Your task to perform on an android device: change the clock display to digital Image 0: 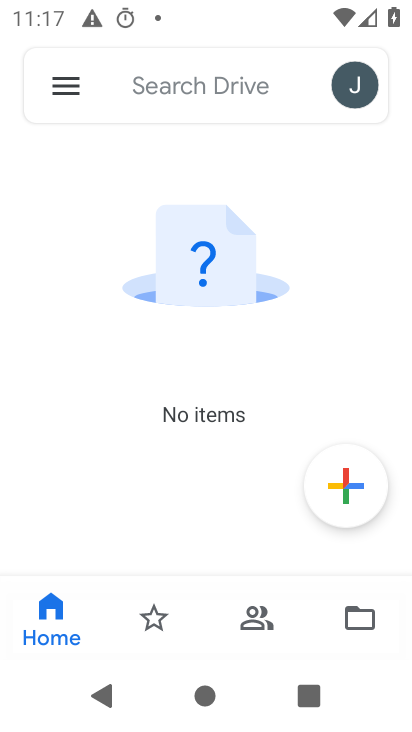
Step 0: press back button
Your task to perform on an android device: change the clock display to digital Image 1: 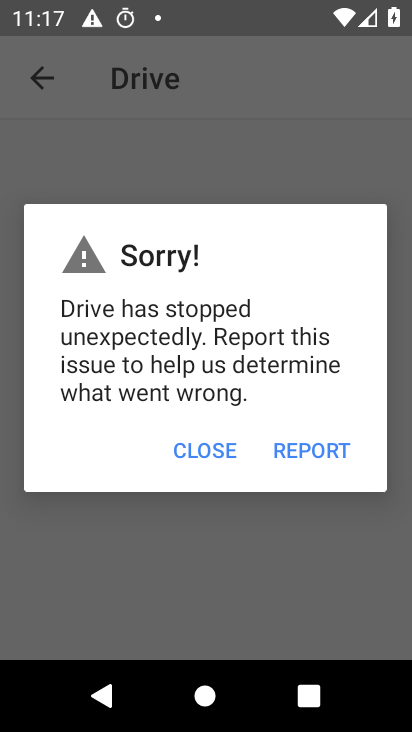
Step 1: press back button
Your task to perform on an android device: change the clock display to digital Image 2: 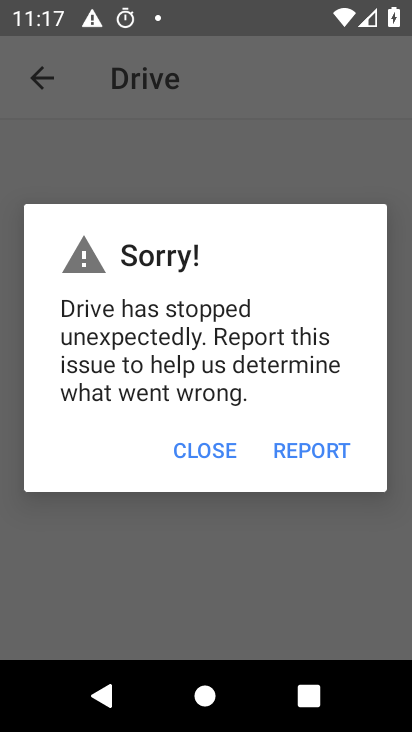
Step 2: press back button
Your task to perform on an android device: change the clock display to digital Image 3: 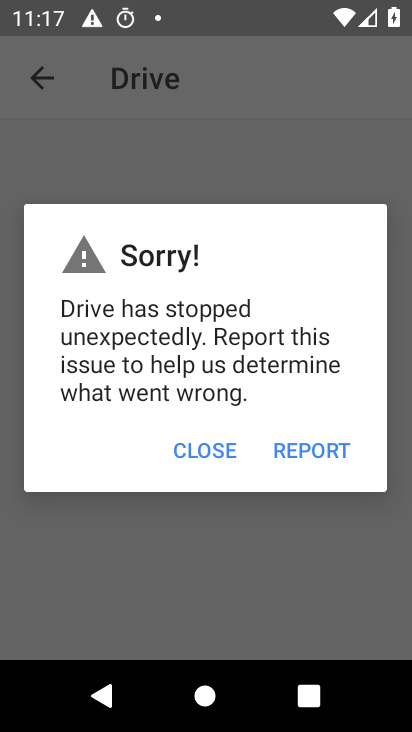
Step 3: press home button
Your task to perform on an android device: change the clock display to digital Image 4: 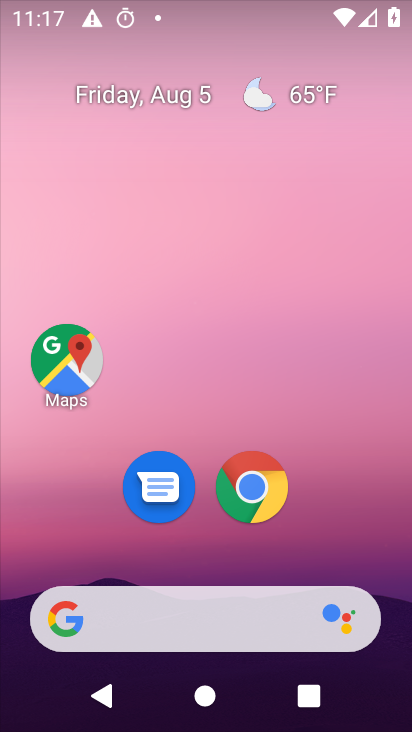
Step 4: drag from (105, 556) to (257, 98)
Your task to perform on an android device: change the clock display to digital Image 5: 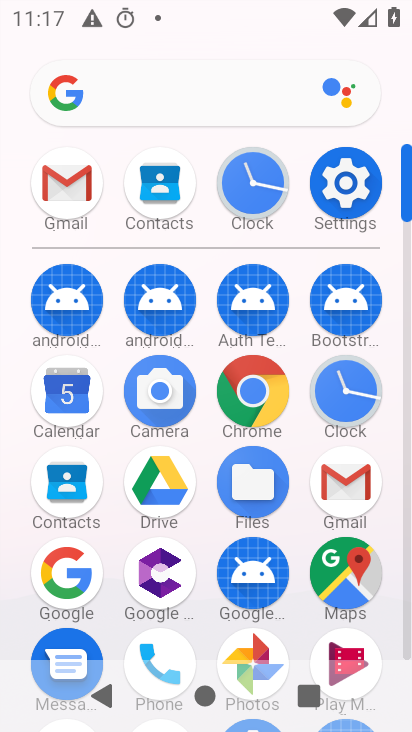
Step 5: click (252, 182)
Your task to perform on an android device: change the clock display to digital Image 6: 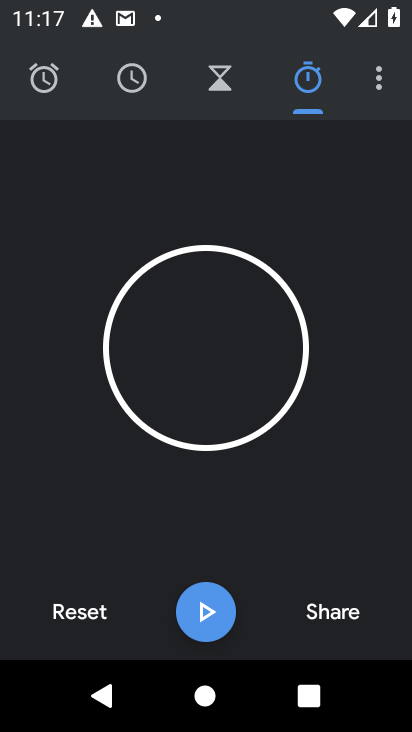
Step 6: click (385, 81)
Your task to perform on an android device: change the clock display to digital Image 7: 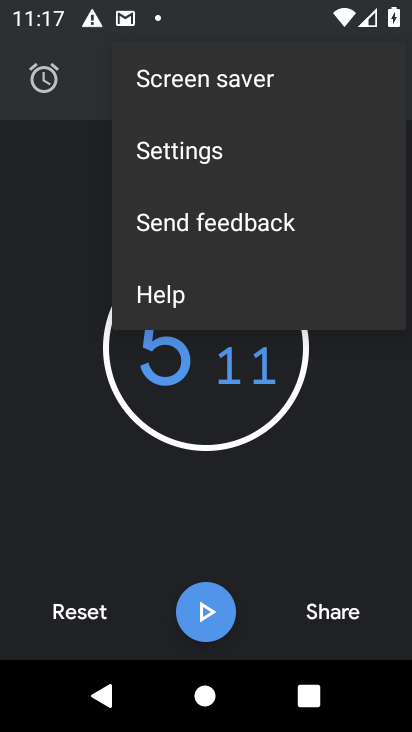
Step 7: click (171, 146)
Your task to perform on an android device: change the clock display to digital Image 8: 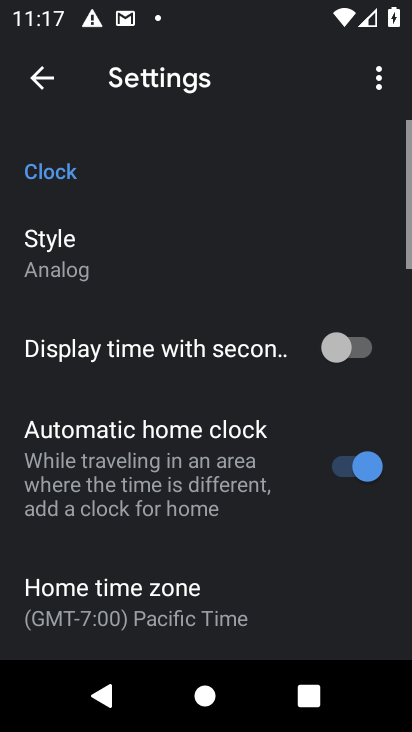
Step 8: click (67, 251)
Your task to perform on an android device: change the clock display to digital Image 9: 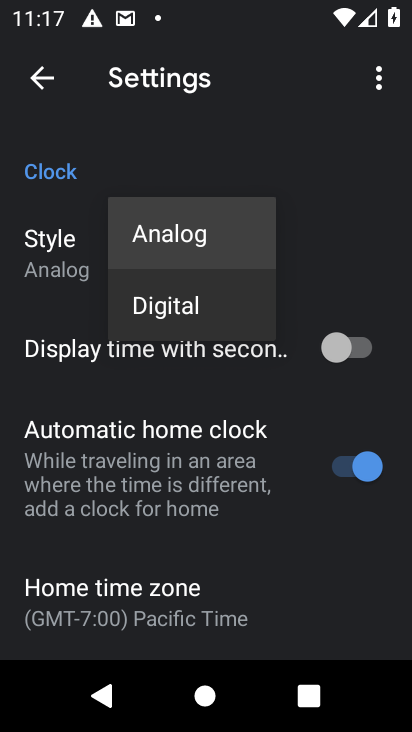
Step 9: click (182, 305)
Your task to perform on an android device: change the clock display to digital Image 10: 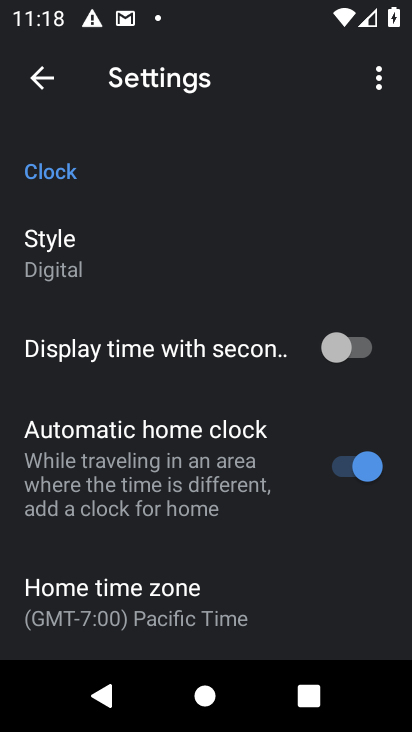
Step 10: task complete